Your task to perform on an android device: open a bookmark in the chrome app Image 0: 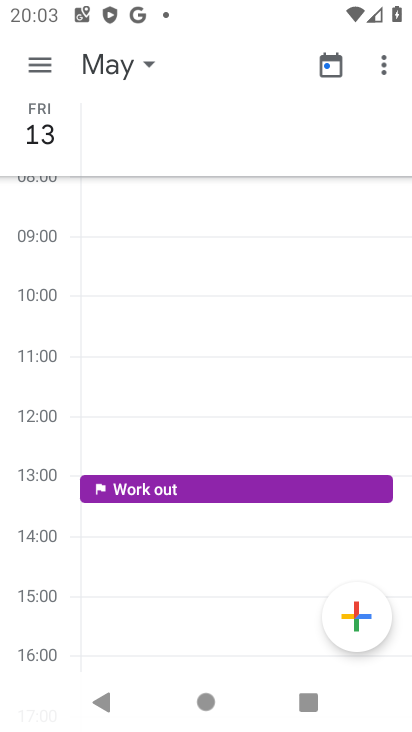
Step 0: press home button
Your task to perform on an android device: open a bookmark in the chrome app Image 1: 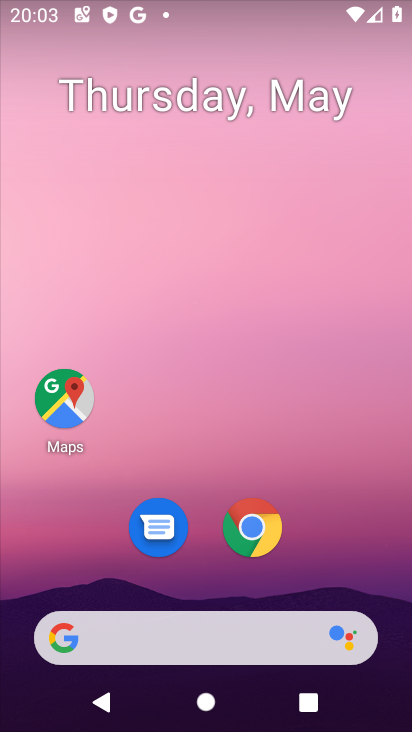
Step 1: click (254, 525)
Your task to perform on an android device: open a bookmark in the chrome app Image 2: 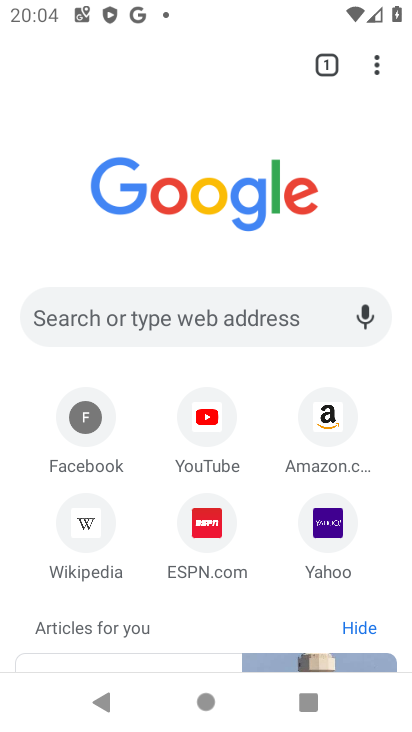
Step 2: click (377, 61)
Your task to perform on an android device: open a bookmark in the chrome app Image 3: 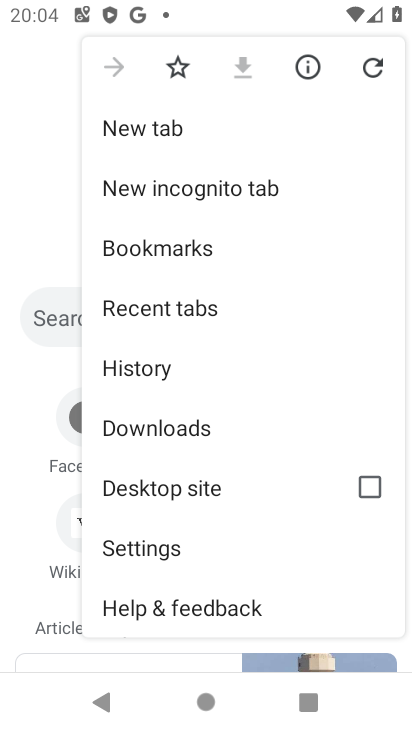
Step 3: click (113, 250)
Your task to perform on an android device: open a bookmark in the chrome app Image 4: 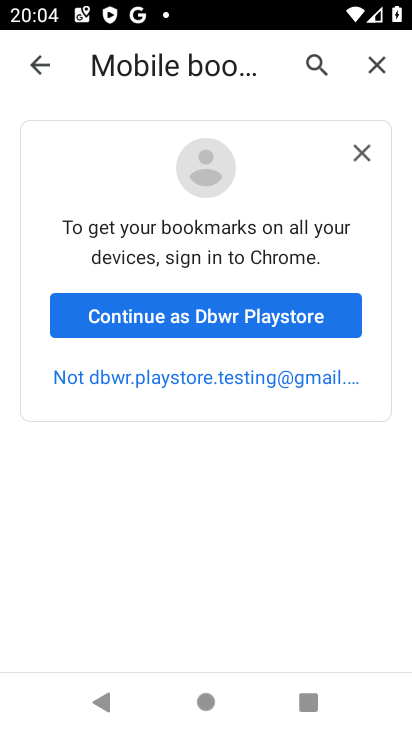
Step 4: click (361, 159)
Your task to perform on an android device: open a bookmark in the chrome app Image 5: 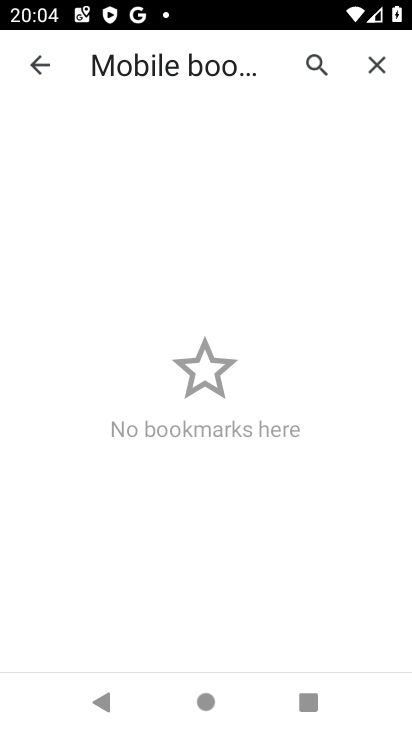
Step 5: task complete